Your task to perform on an android device: Search for Mexican restaurants on Maps Image 0: 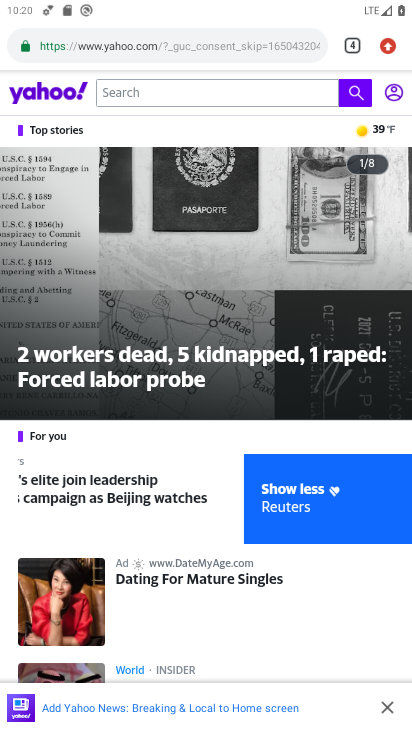
Step 0: press home button
Your task to perform on an android device: Search for Mexican restaurants on Maps Image 1: 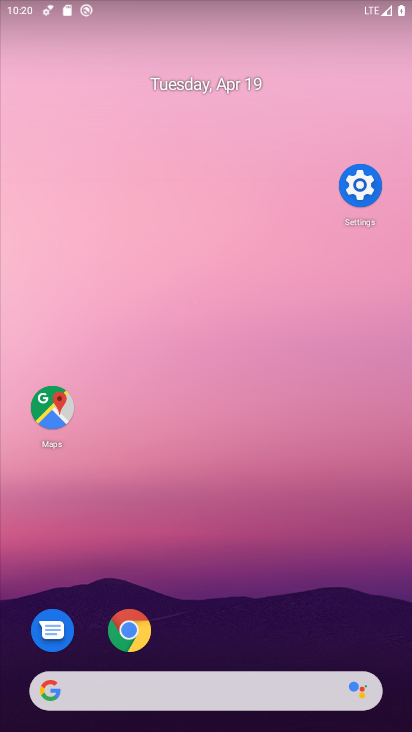
Step 1: drag from (252, 654) to (289, 172)
Your task to perform on an android device: Search for Mexican restaurants on Maps Image 2: 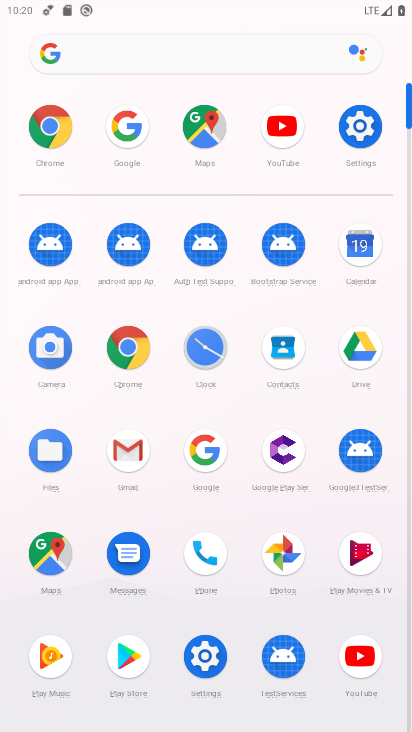
Step 2: click (64, 560)
Your task to perform on an android device: Search for Mexican restaurants on Maps Image 3: 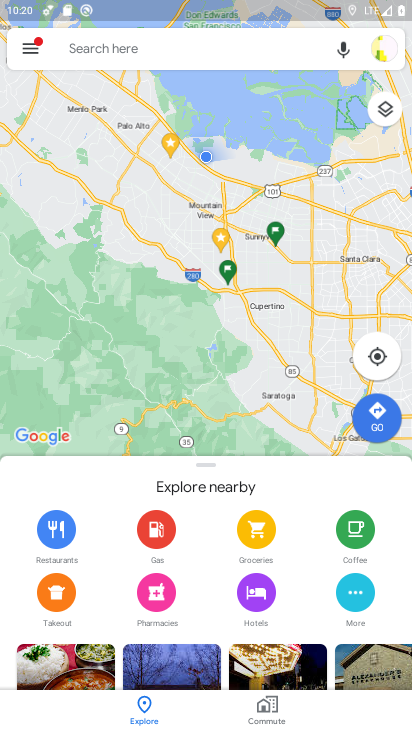
Step 3: click (180, 45)
Your task to perform on an android device: Search for Mexican restaurants on Maps Image 4: 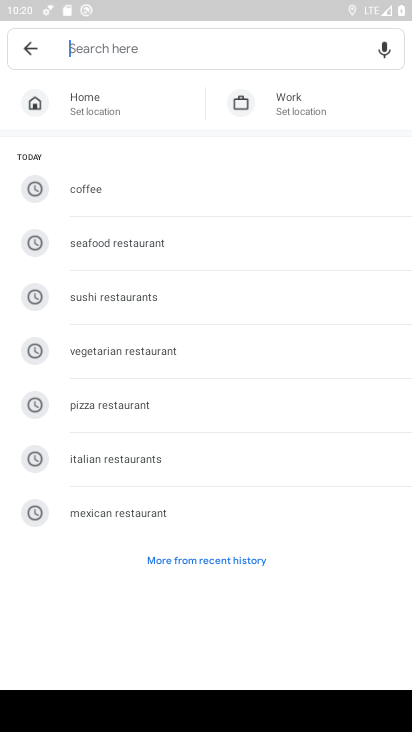
Step 4: click (159, 510)
Your task to perform on an android device: Search for Mexican restaurants on Maps Image 5: 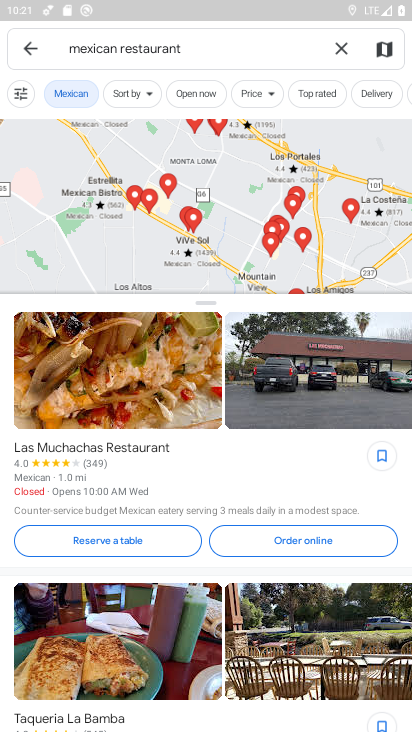
Step 5: task complete